Your task to perform on an android device: set the stopwatch Image 0: 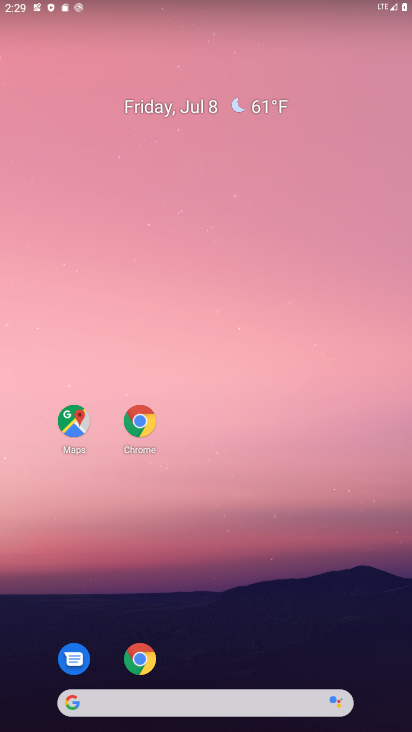
Step 0: drag from (205, 656) to (213, 129)
Your task to perform on an android device: set the stopwatch Image 1: 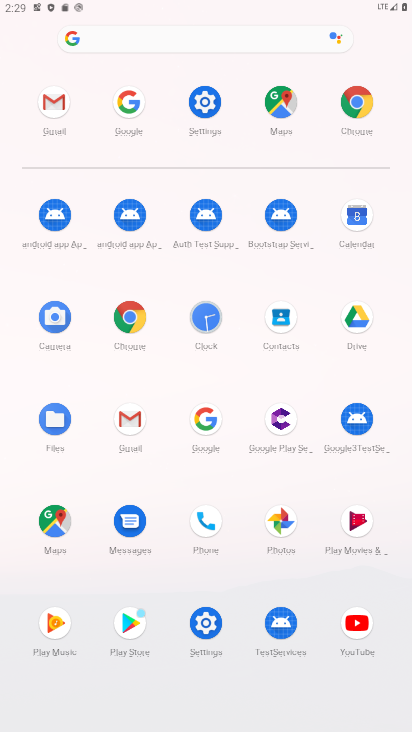
Step 1: click (201, 321)
Your task to perform on an android device: set the stopwatch Image 2: 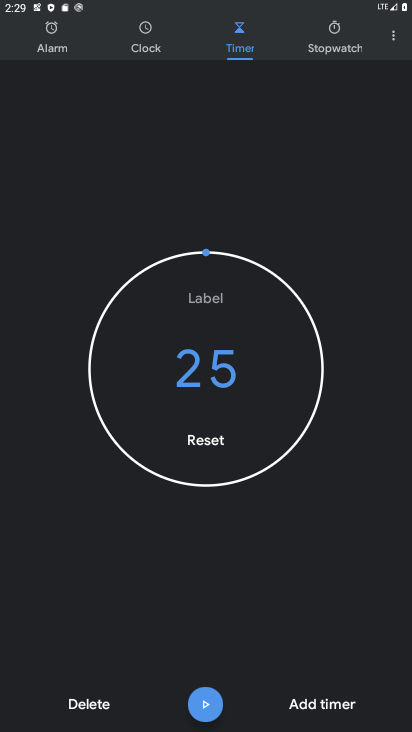
Step 2: click (326, 39)
Your task to perform on an android device: set the stopwatch Image 3: 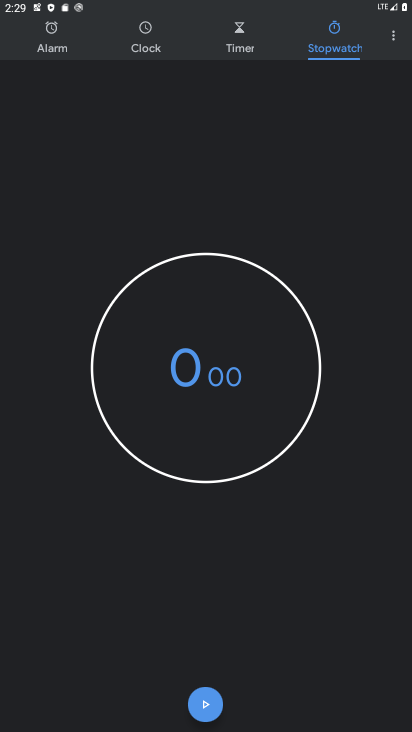
Step 3: task complete